Your task to perform on an android device: turn off translation in the chrome app Image 0: 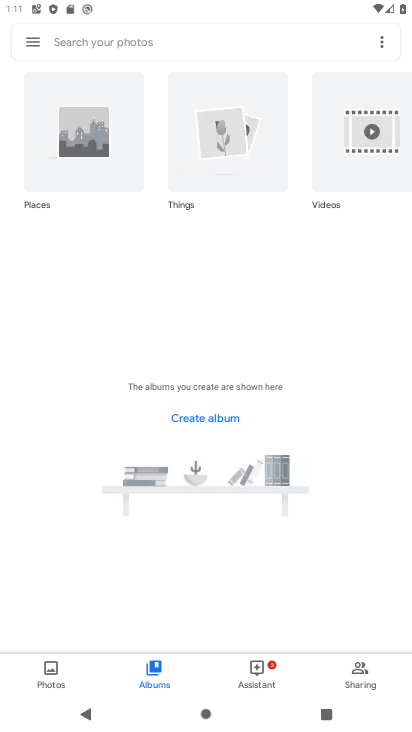
Step 0: press home button
Your task to perform on an android device: turn off translation in the chrome app Image 1: 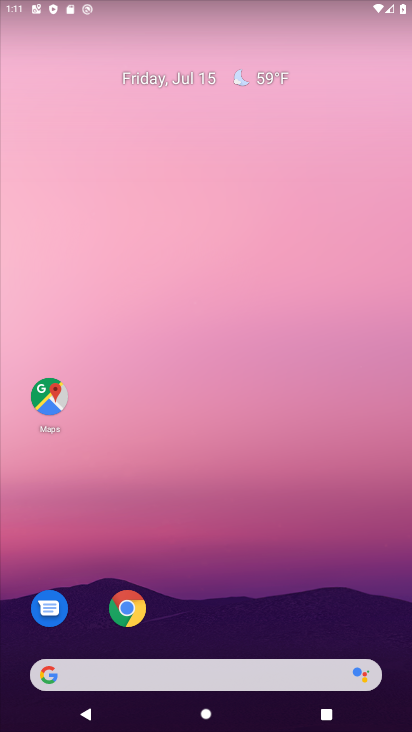
Step 1: click (127, 612)
Your task to perform on an android device: turn off translation in the chrome app Image 2: 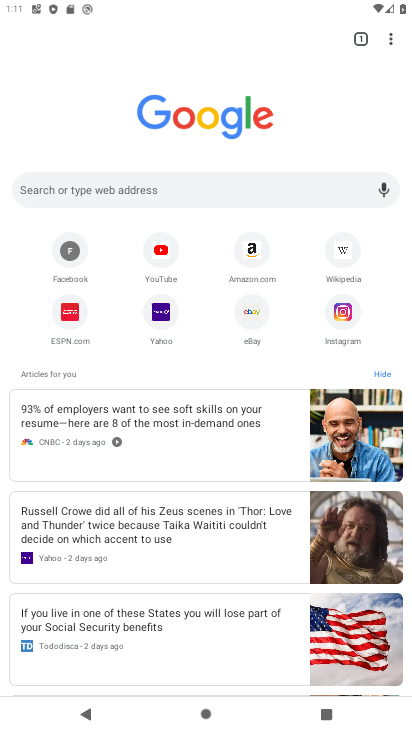
Step 2: click (387, 40)
Your task to perform on an android device: turn off translation in the chrome app Image 3: 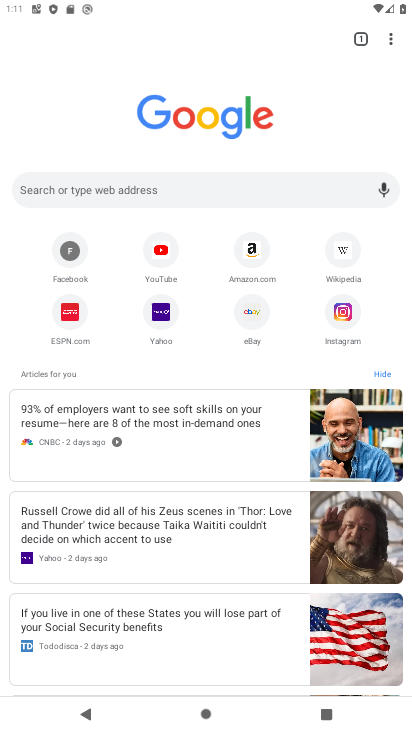
Step 3: click (393, 37)
Your task to perform on an android device: turn off translation in the chrome app Image 4: 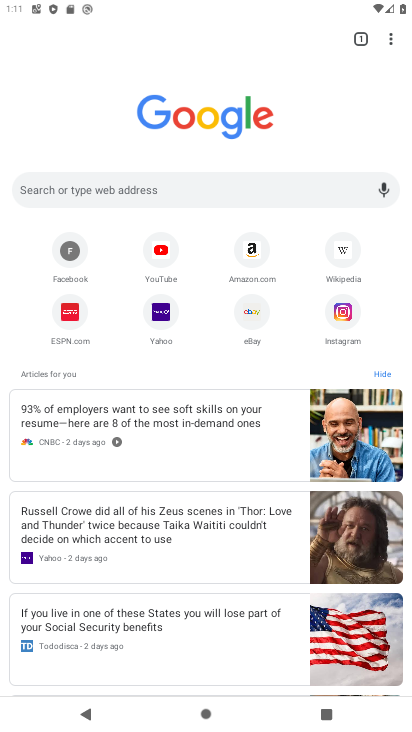
Step 4: click (392, 38)
Your task to perform on an android device: turn off translation in the chrome app Image 5: 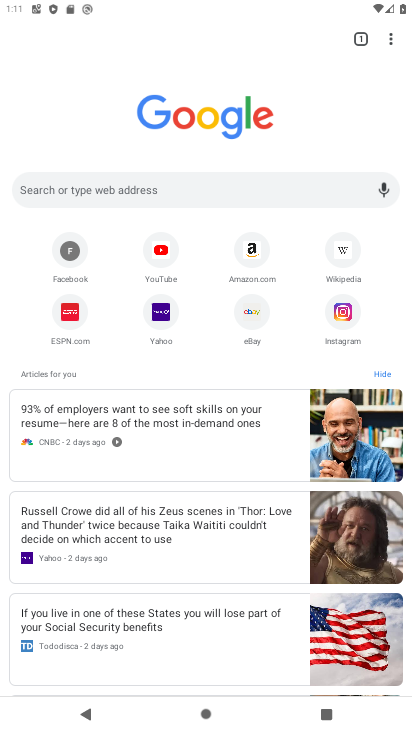
Step 5: click (392, 38)
Your task to perform on an android device: turn off translation in the chrome app Image 6: 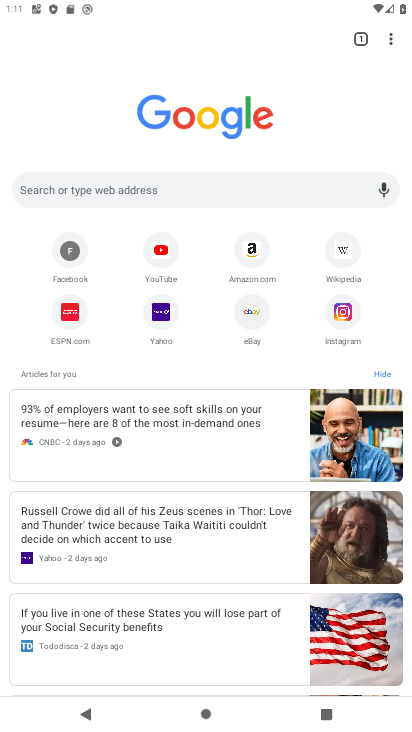
Step 6: click (392, 38)
Your task to perform on an android device: turn off translation in the chrome app Image 7: 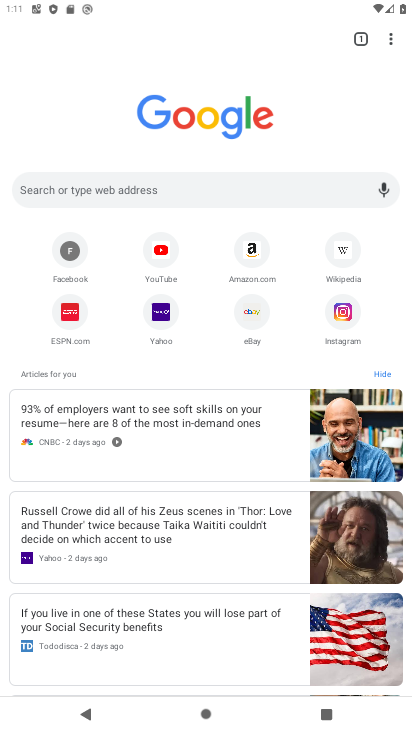
Step 7: click (392, 38)
Your task to perform on an android device: turn off translation in the chrome app Image 8: 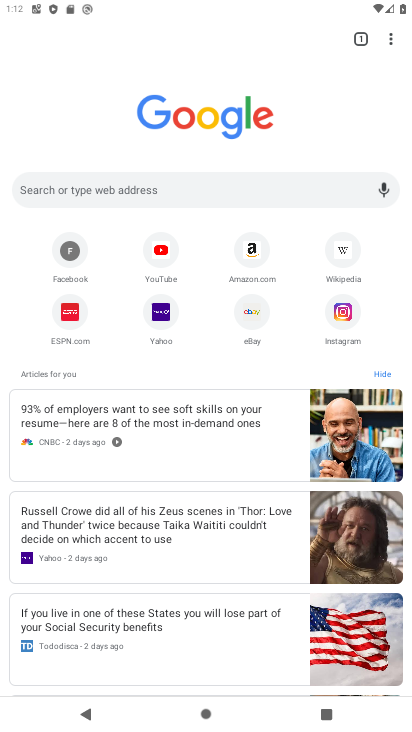
Step 8: click (392, 38)
Your task to perform on an android device: turn off translation in the chrome app Image 9: 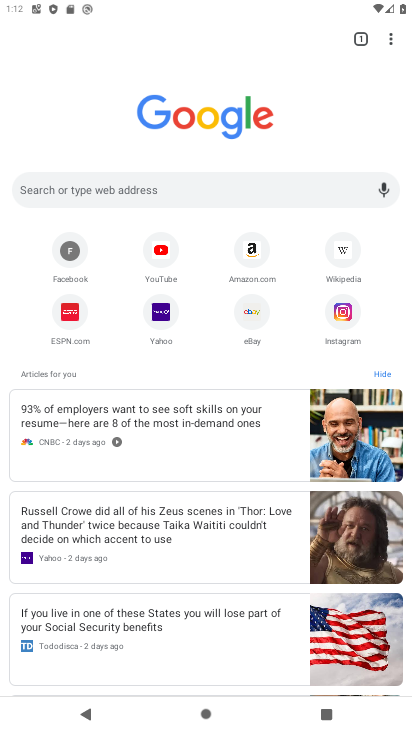
Step 9: click (387, 36)
Your task to perform on an android device: turn off translation in the chrome app Image 10: 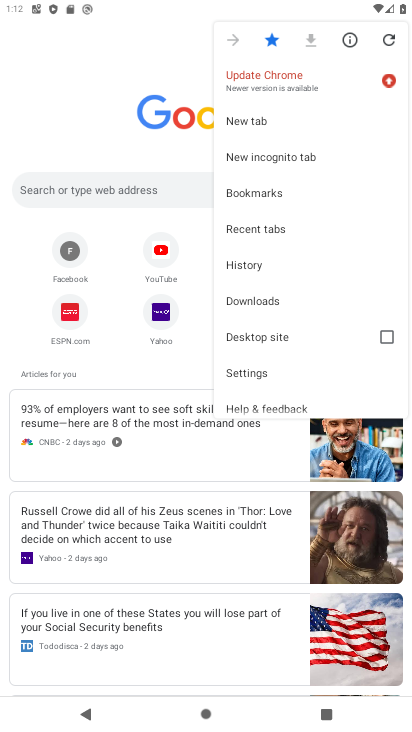
Step 10: click (237, 376)
Your task to perform on an android device: turn off translation in the chrome app Image 11: 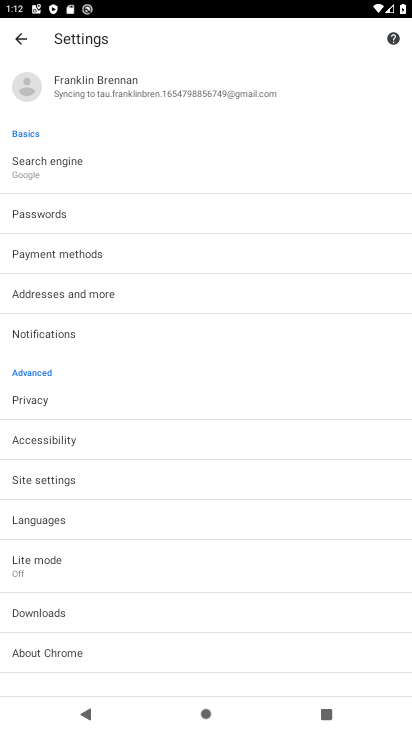
Step 11: click (32, 514)
Your task to perform on an android device: turn off translation in the chrome app Image 12: 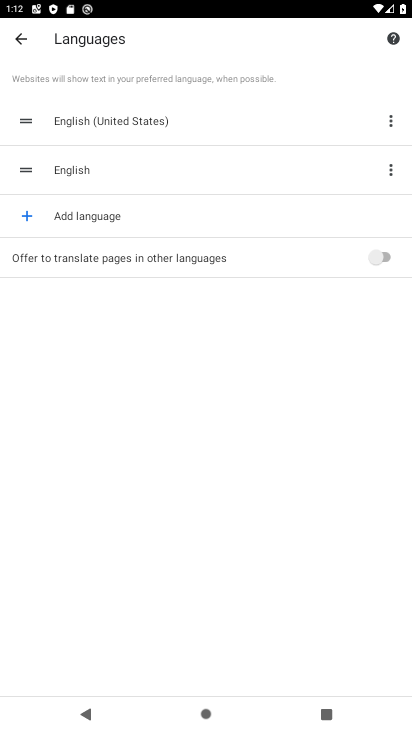
Step 12: task complete